Your task to perform on an android device: Find coffee shops on Maps Image 0: 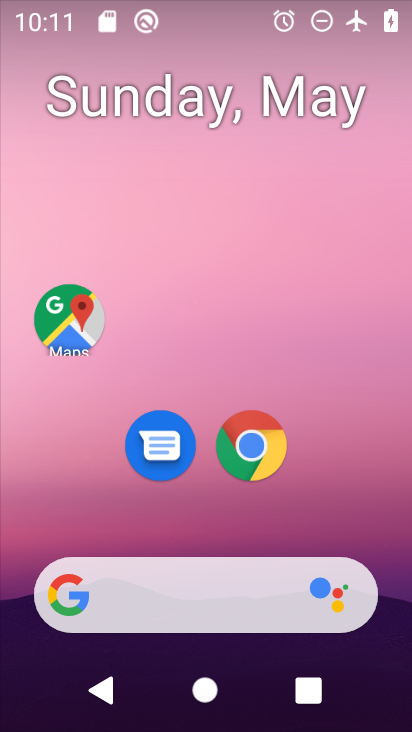
Step 0: drag from (230, 611) to (277, 25)
Your task to perform on an android device: Find coffee shops on Maps Image 1: 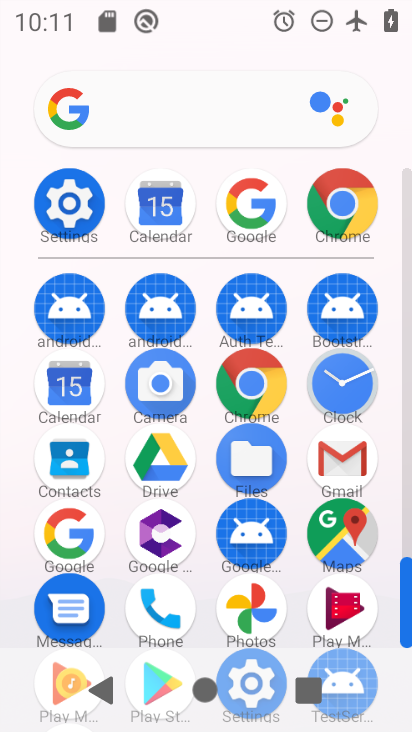
Step 1: drag from (214, 463) to (205, 279)
Your task to perform on an android device: Find coffee shops on Maps Image 2: 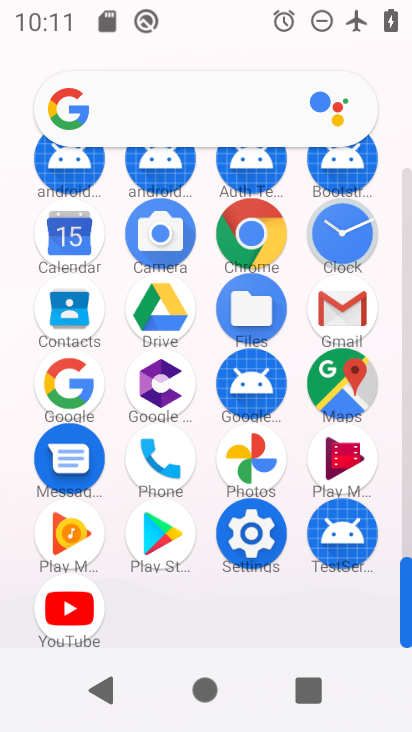
Step 2: click (340, 396)
Your task to perform on an android device: Find coffee shops on Maps Image 3: 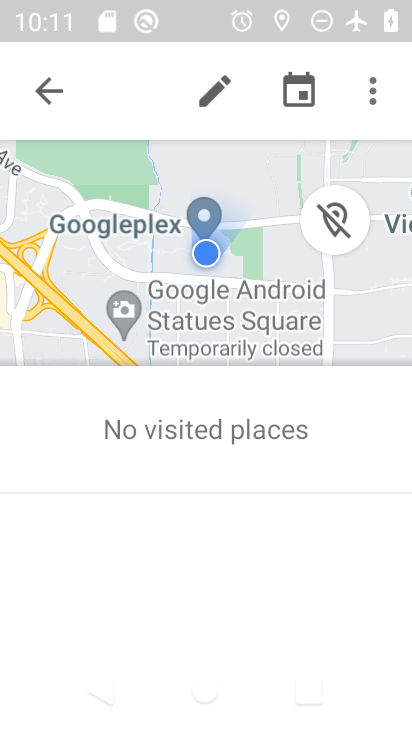
Step 3: click (43, 96)
Your task to perform on an android device: Find coffee shops on Maps Image 4: 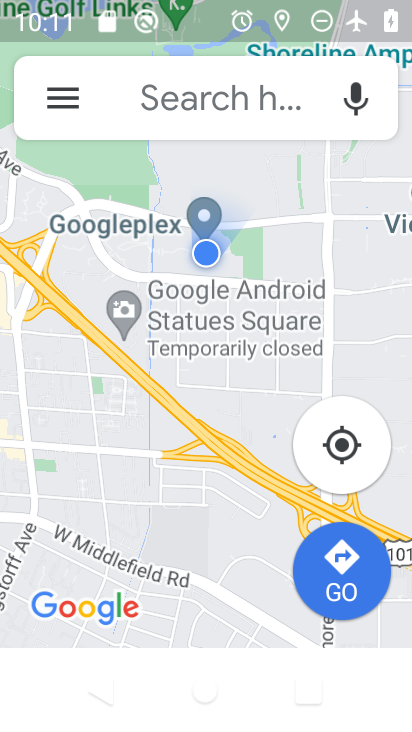
Step 4: click (235, 94)
Your task to perform on an android device: Find coffee shops on Maps Image 5: 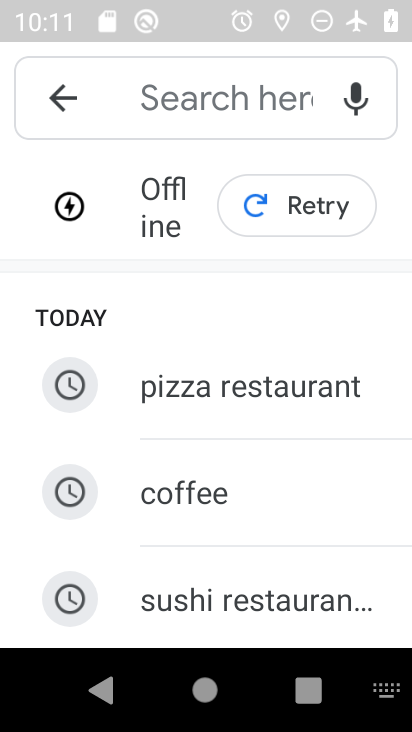
Step 5: drag from (294, 545) to (315, 227)
Your task to perform on an android device: Find coffee shops on Maps Image 6: 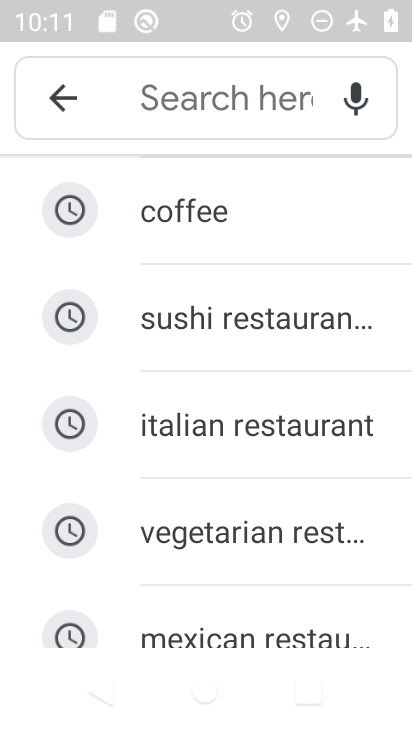
Step 6: drag from (235, 526) to (233, 261)
Your task to perform on an android device: Find coffee shops on Maps Image 7: 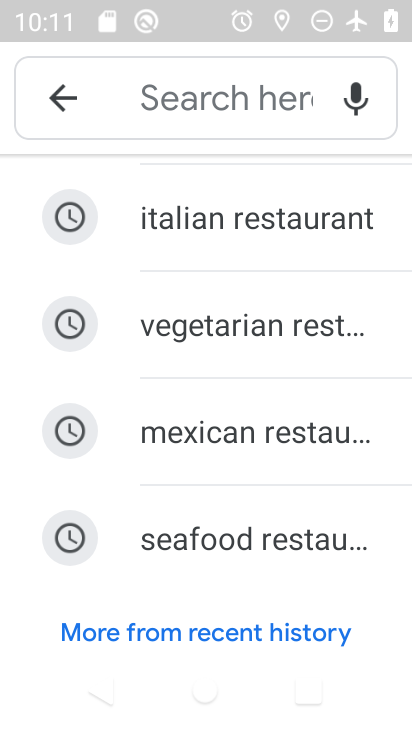
Step 7: drag from (256, 517) to (243, 239)
Your task to perform on an android device: Find coffee shops on Maps Image 8: 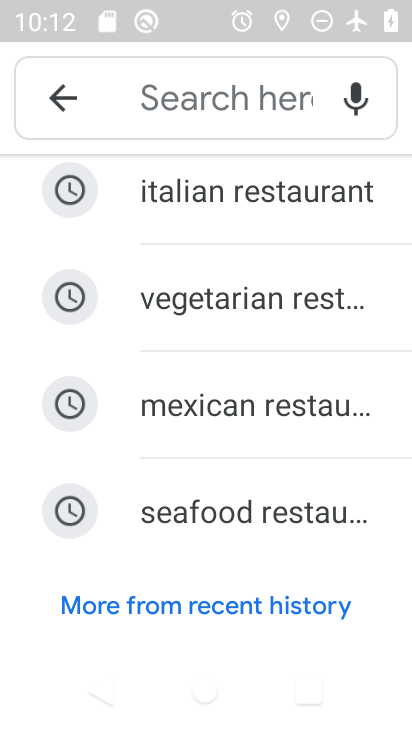
Step 8: click (224, 98)
Your task to perform on an android device: Find coffee shops on Maps Image 9: 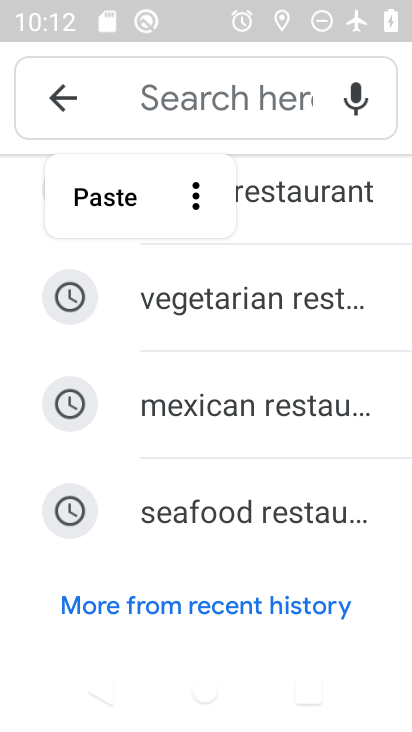
Step 9: type "coffee shops"
Your task to perform on an android device: Find coffee shops on Maps Image 10: 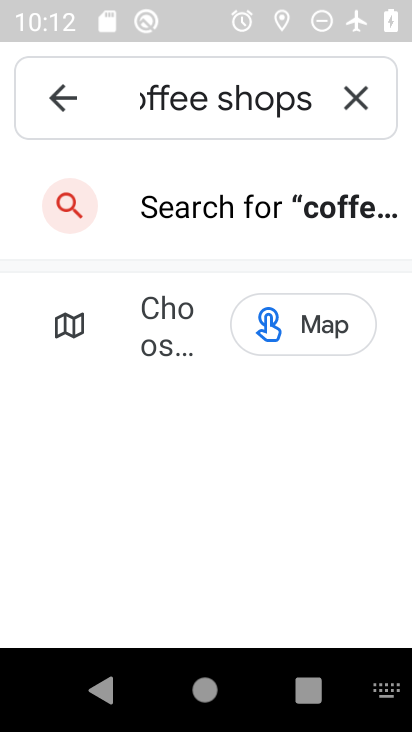
Step 10: click (332, 216)
Your task to perform on an android device: Find coffee shops on Maps Image 11: 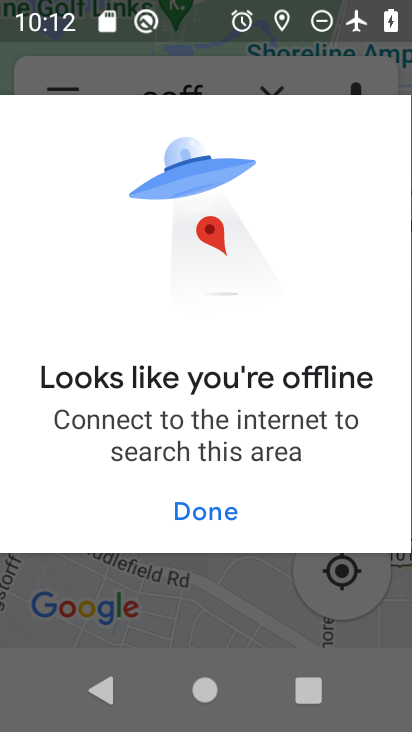
Step 11: task complete